Your task to perform on an android device: see creations saved in the google photos Image 0: 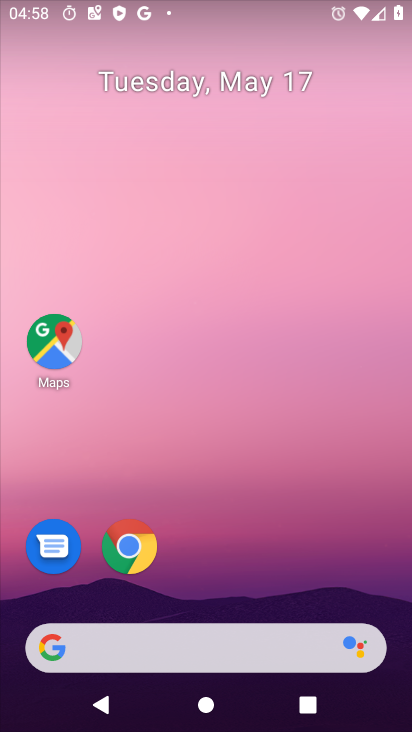
Step 0: click (394, 217)
Your task to perform on an android device: see creations saved in the google photos Image 1: 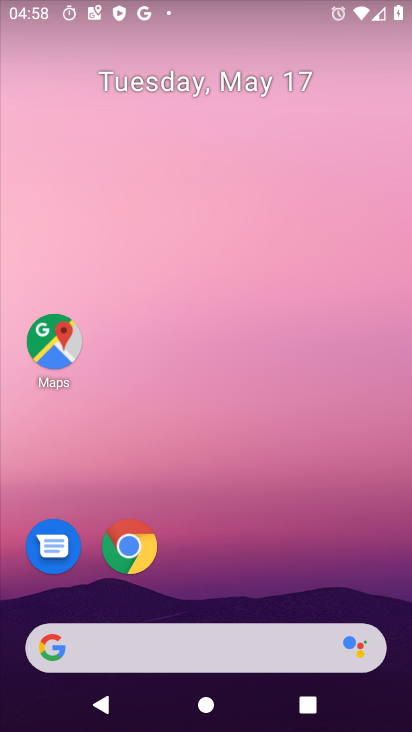
Step 1: drag from (395, 638) to (349, 229)
Your task to perform on an android device: see creations saved in the google photos Image 2: 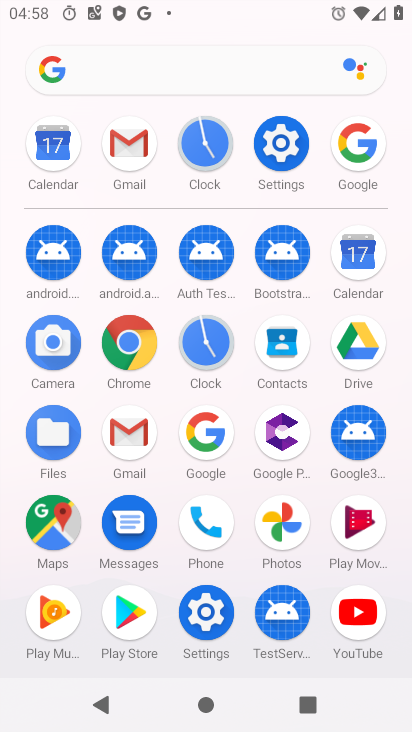
Step 2: click (282, 516)
Your task to perform on an android device: see creations saved in the google photos Image 3: 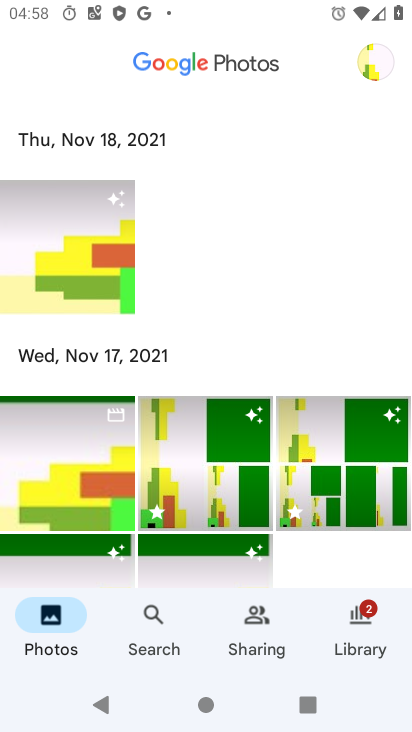
Step 3: click (67, 246)
Your task to perform on an android device: see creations saved in the google photos Image 4: 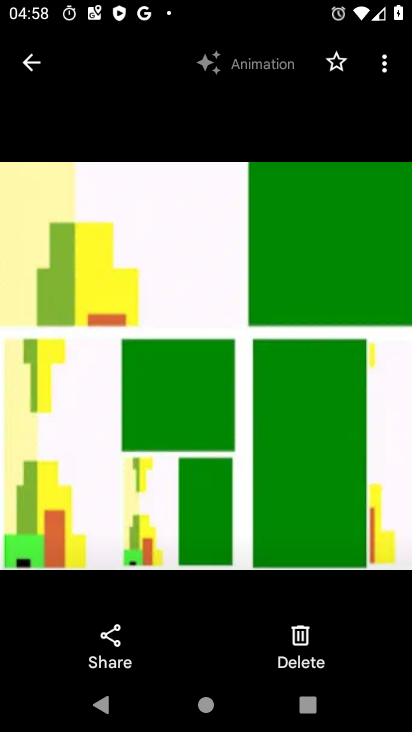
Step 4: task complete